Your task to perform on an android device: Go to accessibility settings Image 0: 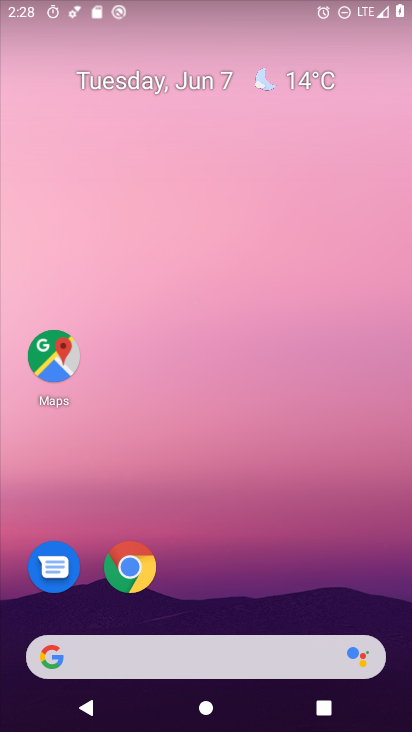
Step 0: drag from (309, 572) to (379, 0)
Your task to perform on an android device: Go to accessibility settings Image 1: 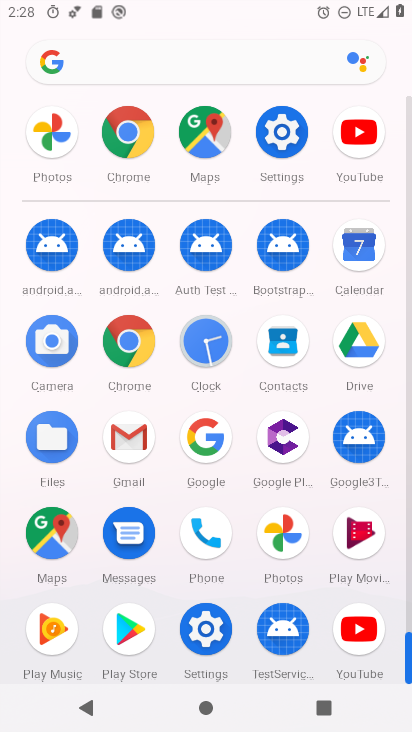
Step 1: click (277, 176)
Your task to perform on an android device: Go to accessibility settings Image 2: 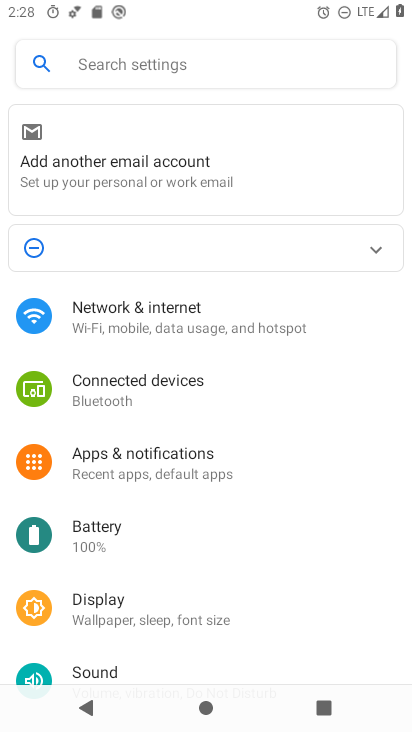
Step 2: drag from (186, 587) to (301, 25)
Your task to perform on an android device: Go to accessibility settings Image 3: 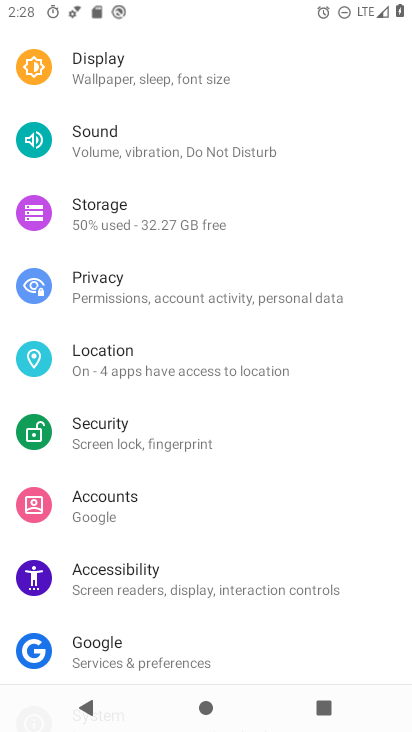
Step 3: click (167, 572)
Your task to perform on an android device: Go to accessibility settings Image 4: 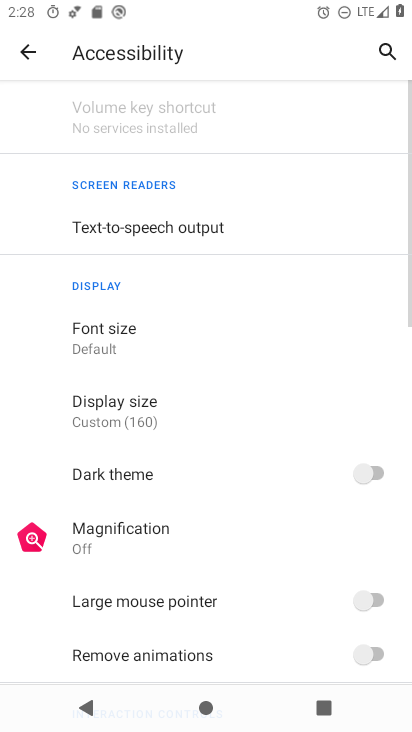
Step 4: task complete